Your task to perform on an android device: change keyboard looks Image 0: 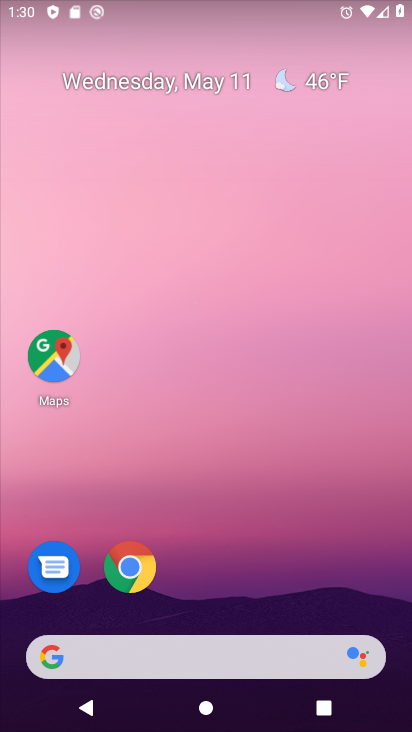
Step 0: drag from (199, 620) to (93, 12)
Your task to perform on an android device: change keyboard looks Image 1: 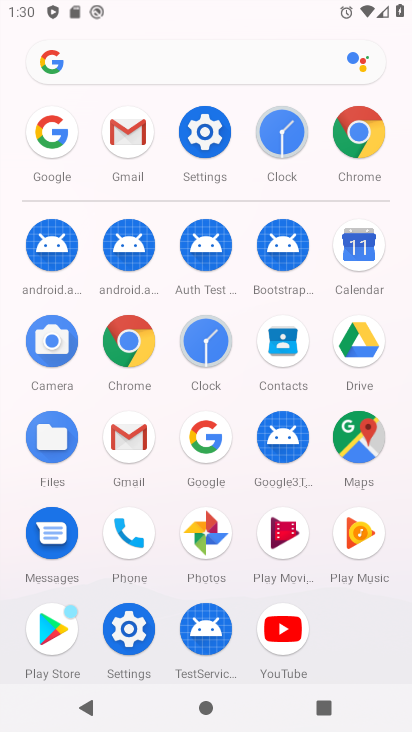
Step 1: click (203, 117)
Your task to perform on an android device: change keyboard looks Image 2: 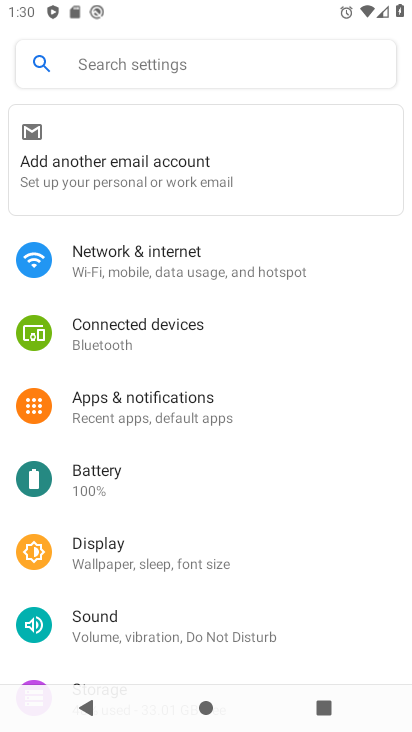
Step 2: drag from (186, 496) to (118, 6)
Your task to perform on an android device: change keyboard looks Image 3: 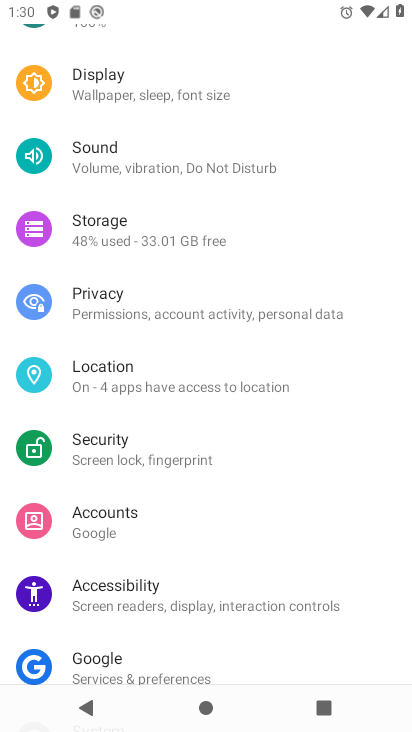
Step 3: drag from (142, 557) to (121, 89)
Your task to perform on an android device: change keyboard looks Image 4: 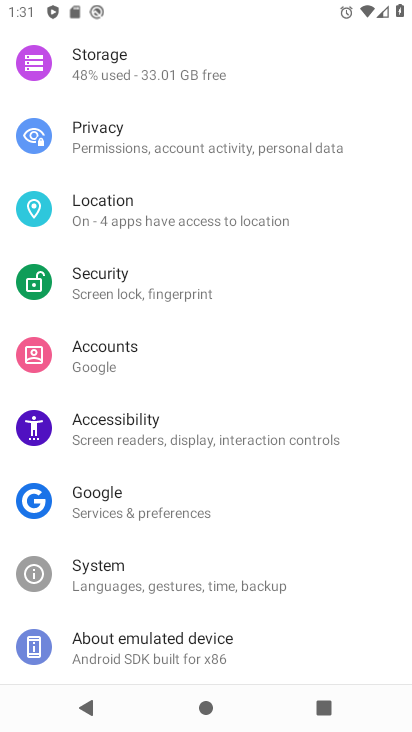
Step 4: click (130, 578)
Your task to perform on an android device: change keyboard looks Image 5: 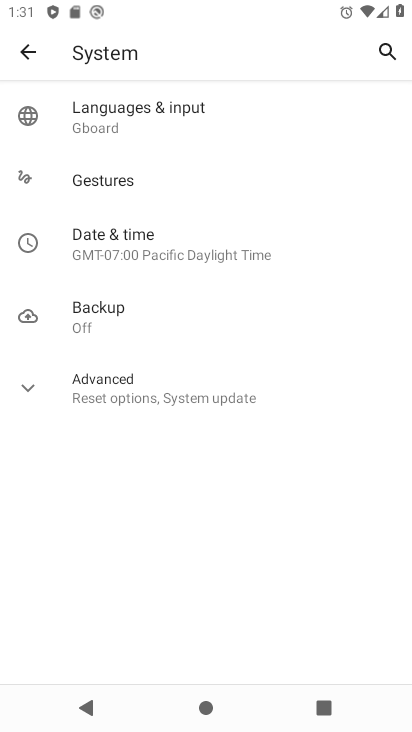
Step 5: click (136, 130)
Your task to perform on an android device: change keyboard looks Image 6: 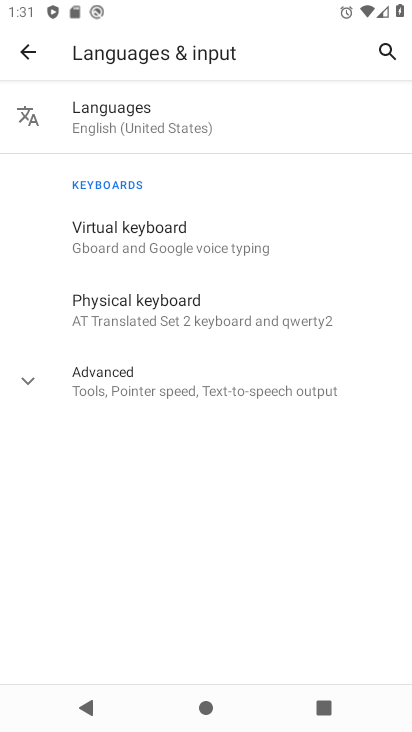
Step 6: click (132, 260)
Your task to perform on an android device: change keyboard looks Image 7: 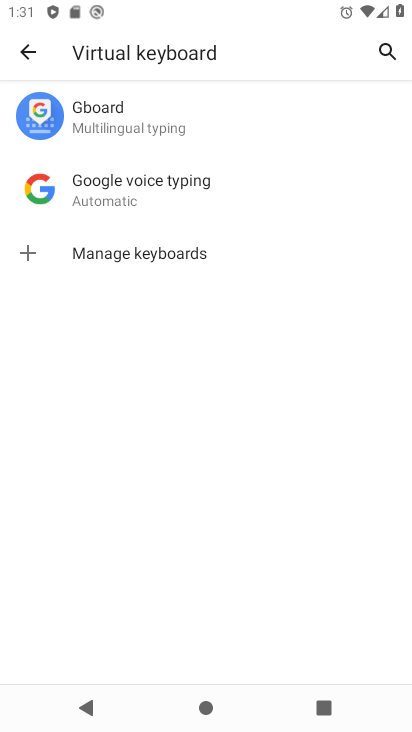
Step 7: click (137, 123)
Your task to perform on an android device: change keyboard looks Image 8: 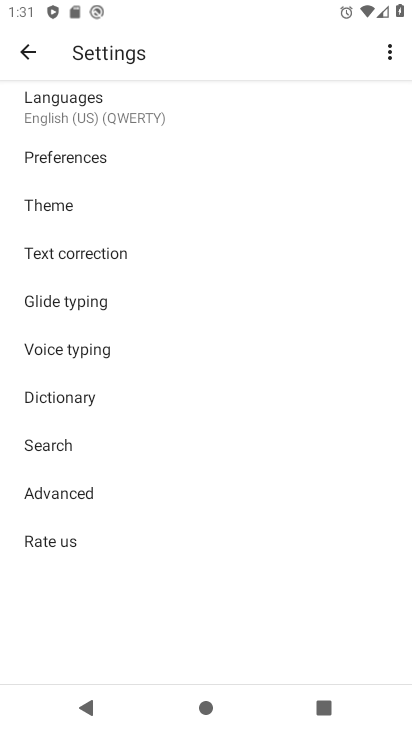
Step 8: click (76, 202)
Your task to perform on an android device: change keyboard looks Image 9: 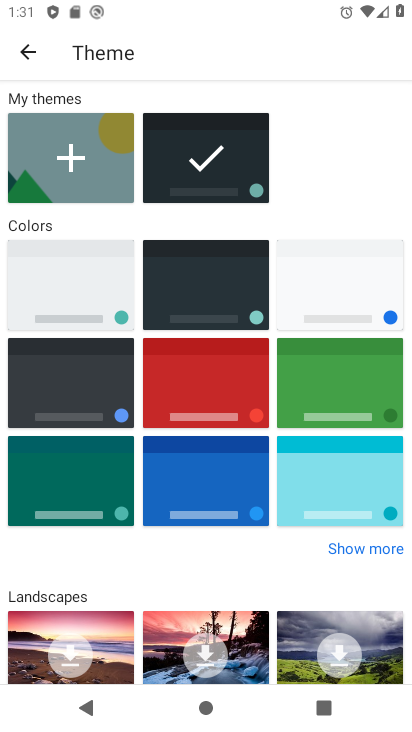
Step 9: click (147, 287)
Your task to perform on an android device: change keyboard looks Image 10: 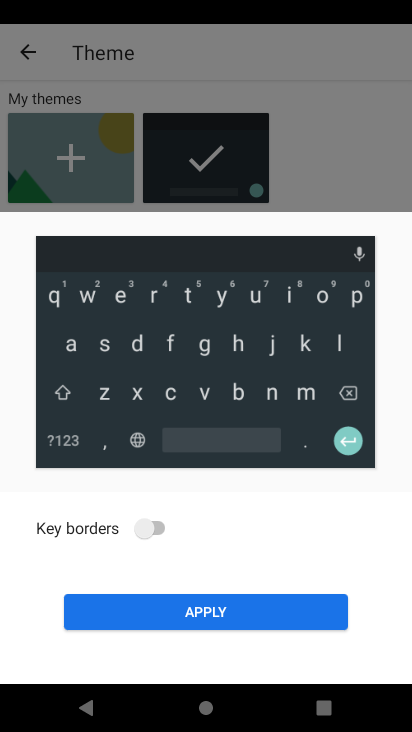
Step 10: click (146, 191)
Your task to perform on an android device: change keyboard looks Image 11: 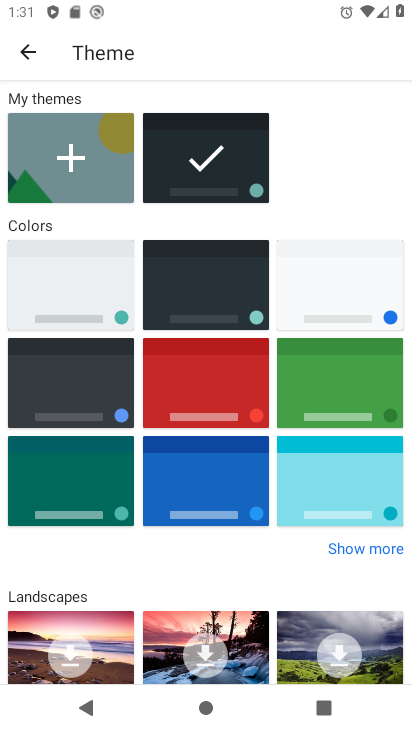
Step 11: click (186, 355)
Your task to perform on an android device: change keyboard looks Image 12: 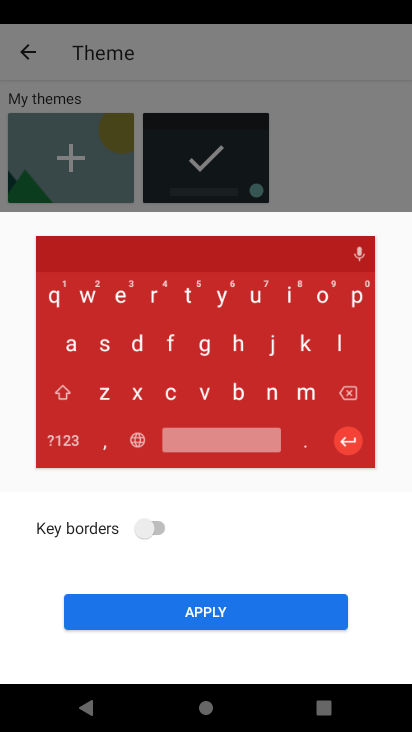
Step 12: click (240, 597)
Your task to perform on an android device: change keyboard looks Image 13: 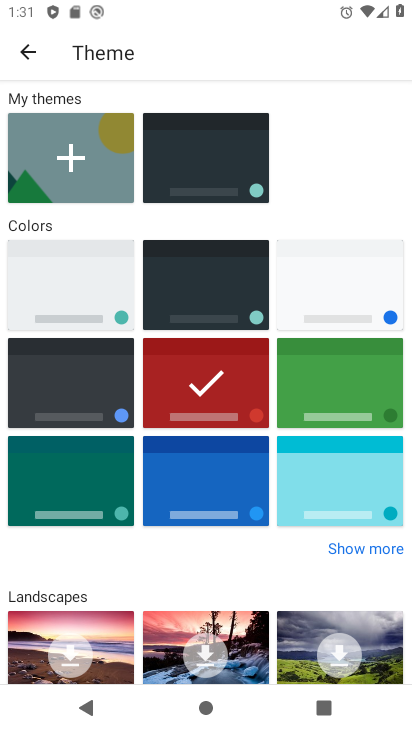
Step 13: task complete